Your task to perform on an android device: Open wifi settings Image 0: 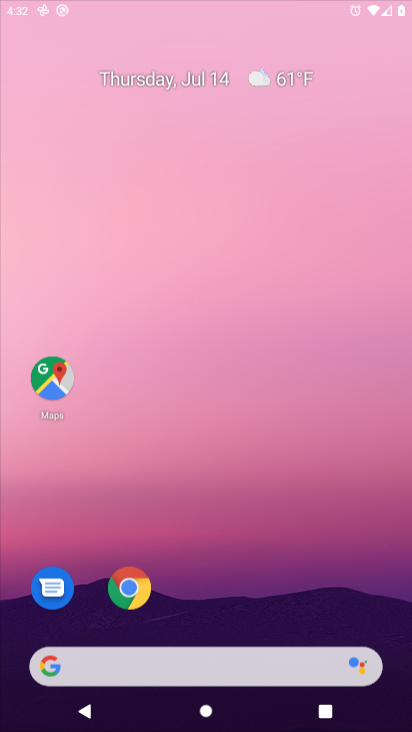
Step 0: press home button
Your task to perform on an android device: Open wifi settings Image 1: 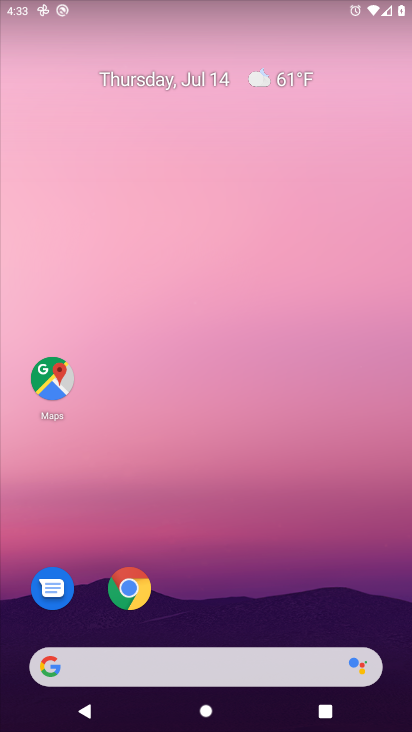
Step 1: drag from (228, 624) to (316, 30)
Your task to perform on an android device: Open wifi settings Image 2: 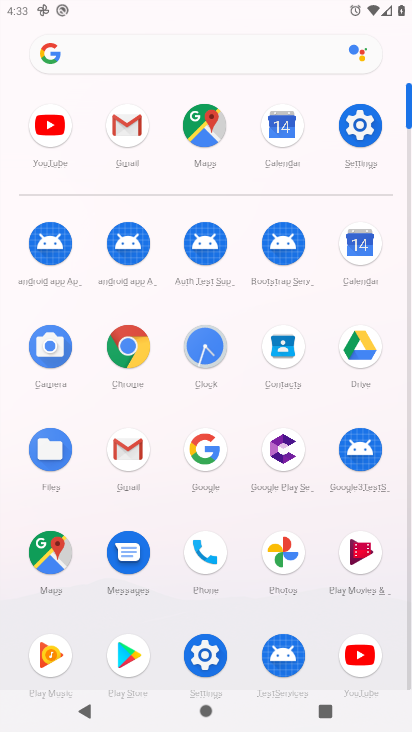
Step 2: click (359, 126)
Your task to perform on an android device: Open wifi settings Image 3: 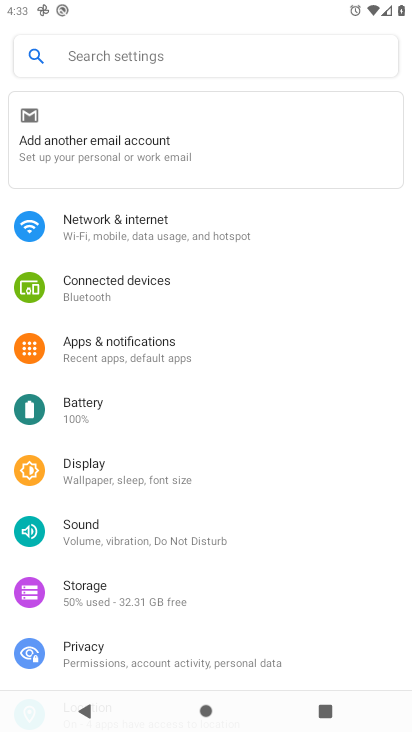
Step 3: click (126, 237)
Your task to perform on an android device: Open wifi settings Image 4: 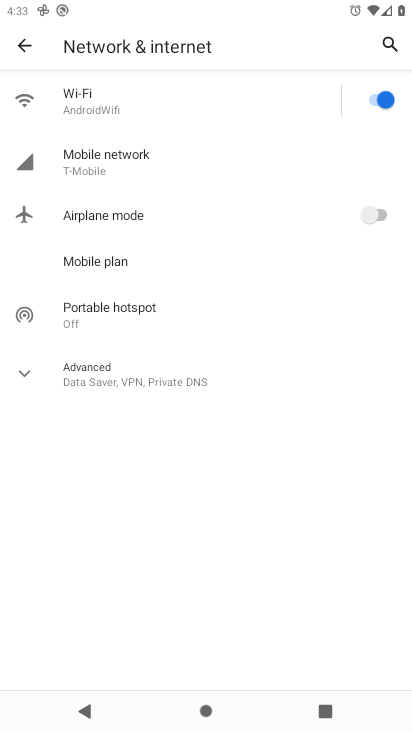
Step 4: click (96, 105)
Your task to perform on an android device: Open wifi settings Image 5: 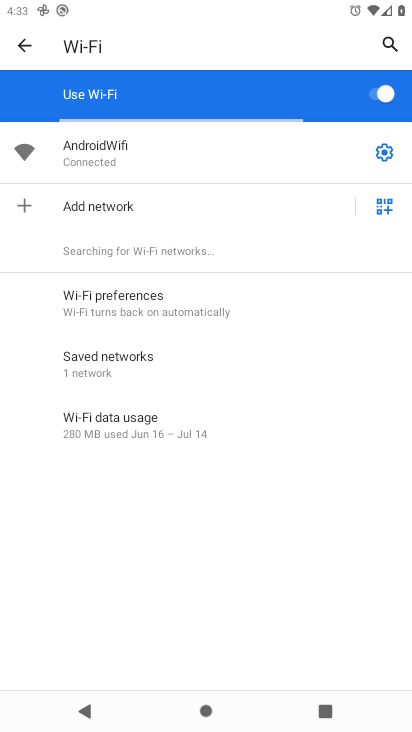
Step 5: task complete